Your task to perform on an android device: Check the news Image 0: 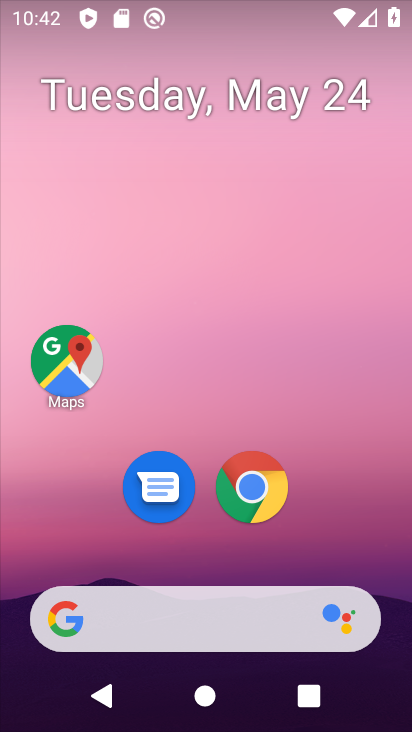
Step 0: click (175, 621)
Your task to perform on an android device: Check the news Image 1: 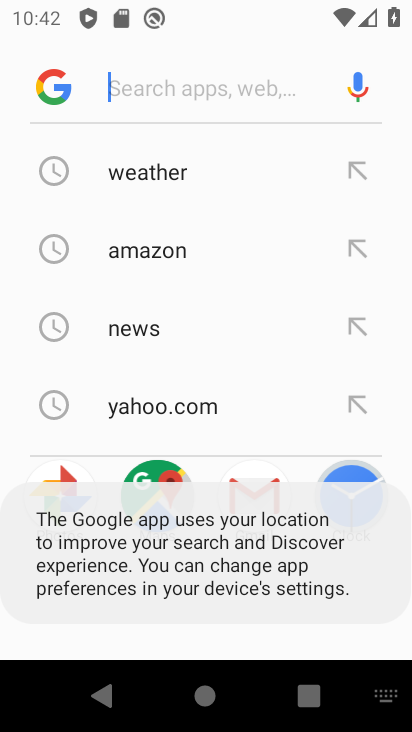
Step 1: click (140, 335)
Your task to perform on an android device: Check the news Image 2: 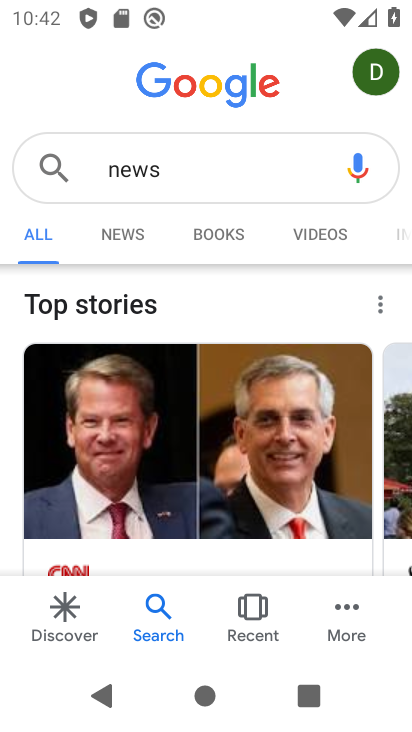
Step 2: task complete